Your task to perform on an android device: Check the weather Image 0: 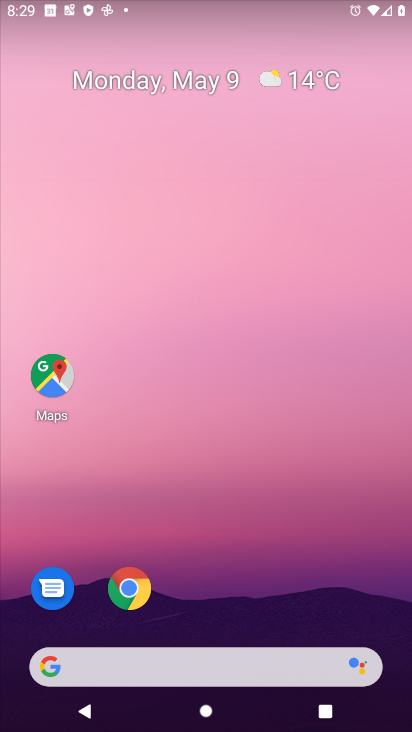
Step 0: click (194, 663)
Your task to perform on an android device: Check the weather Image 1: 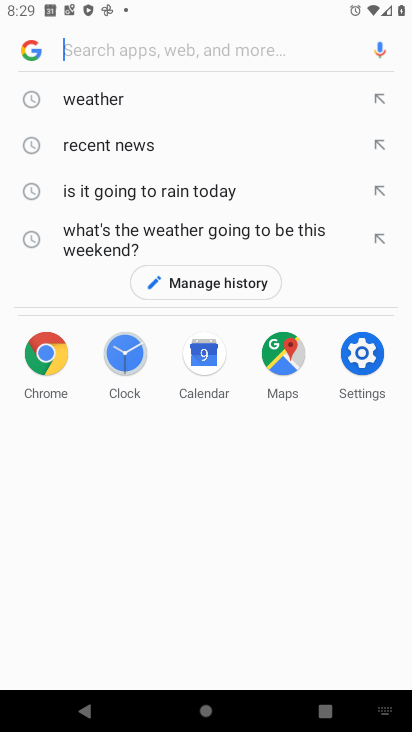
Step 1: click (121, 95)
Your task to perform on an android device: Check the weather Image 2: 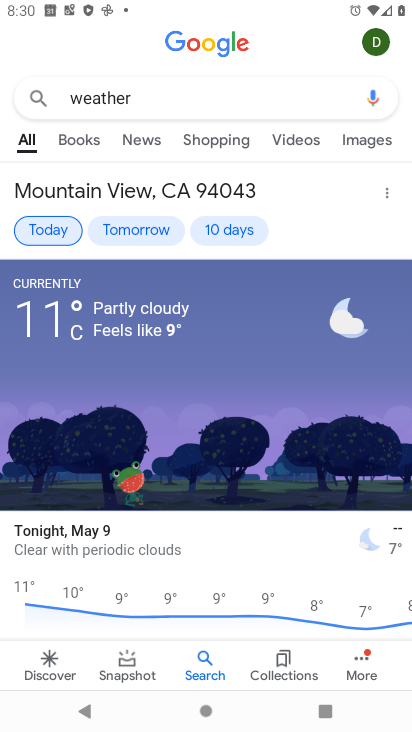
Step 2: task complete